Your task to perform on an android device: find which apps use the phone's location Image 0: 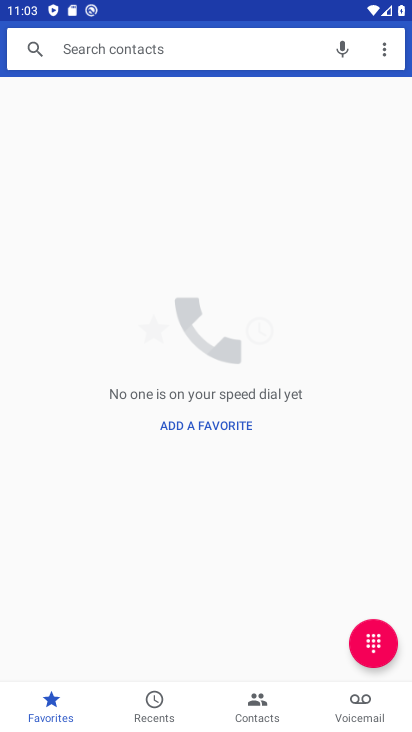
Step 0: press home button
Your task to perform on an android device: find which apps use the phone's location Image 1: 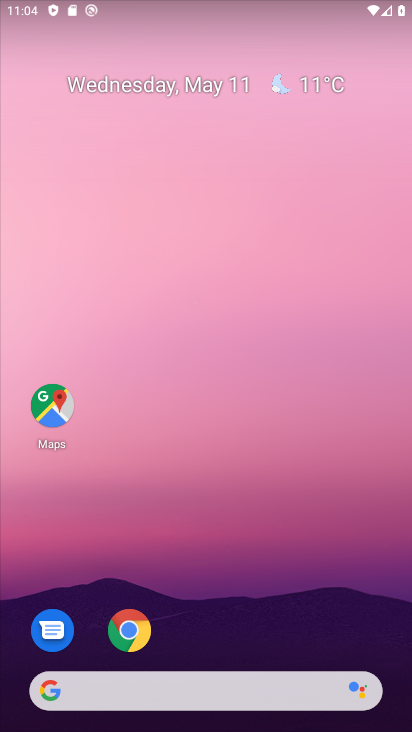
Step 1: drag from (215, 647) to (266, 297)
Your task to perform on an android device: find which apps use the phone's location Image 2: 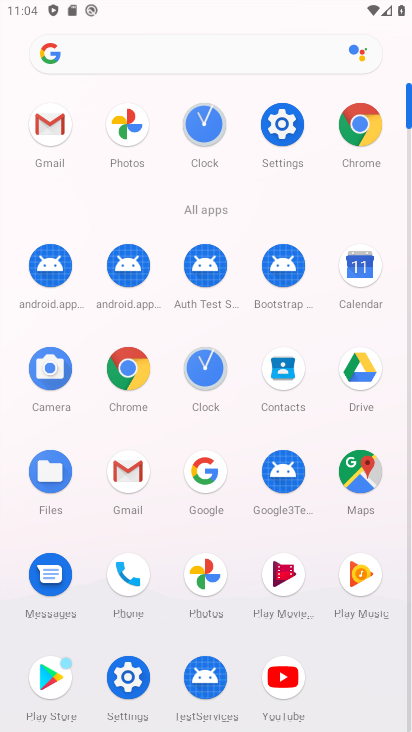
Step 2: click (277, 132)
Your task to perform on an android device: find which apps use the phone's location Image 3: 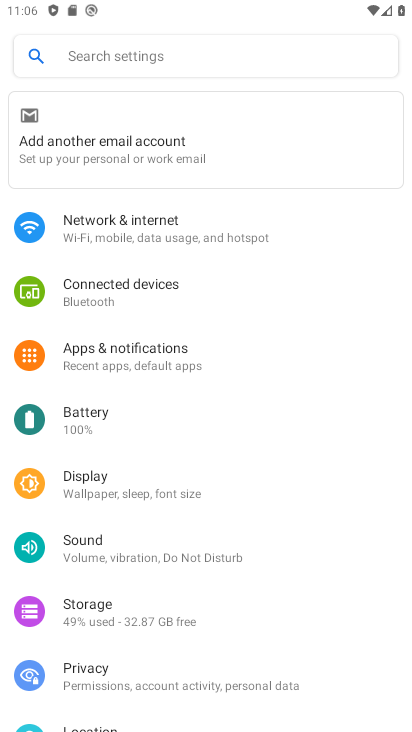
Step 3: drag from (144, 283) to (182, 587)
Your task to perform on an android device: find which apps use the phone's location Image 4: 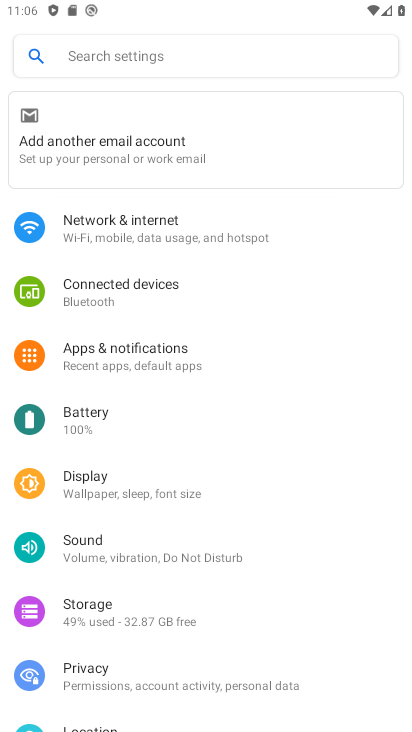
Step 4: drag from (133, 618) to (153, 290)
Your task to perform on an android device: find which apps use the phone's location Image 5: 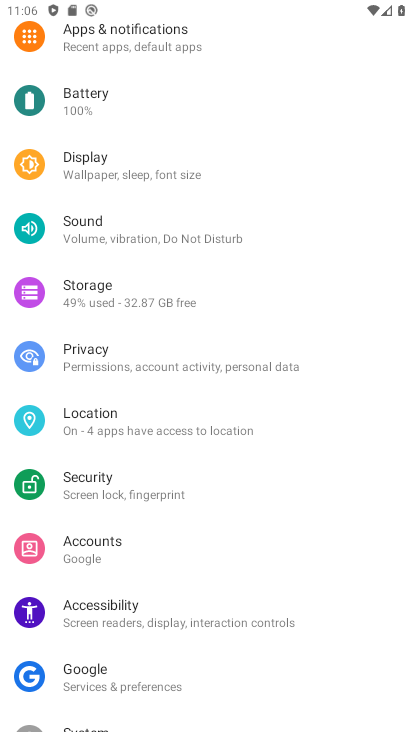
Step 5: click (134, 426)
Your task to perform on an android device: find which apps use the phone's location Image 6: 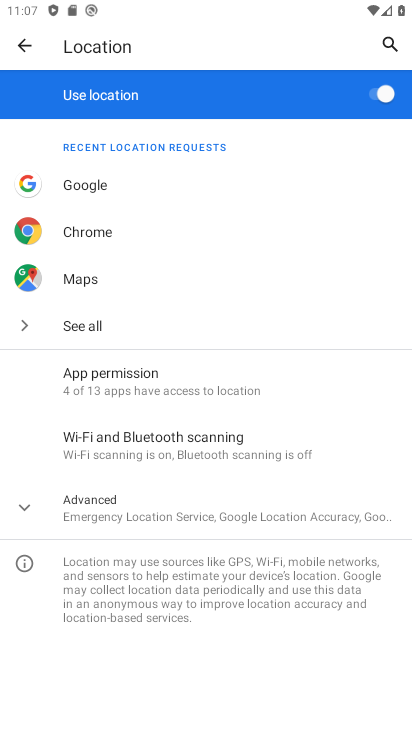
Step 6: click (100, 194)
Your task to perform on an android device: find which apps use the phone's location Image 7: 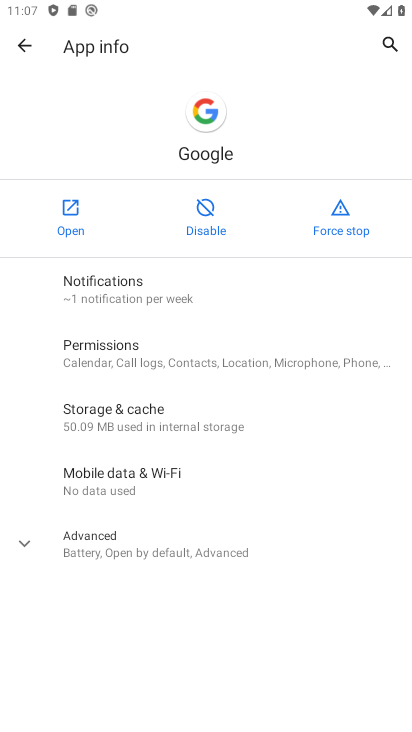
Step 7: task complete